Your task to perform on an android device: Go to Reddit.com Image 0: 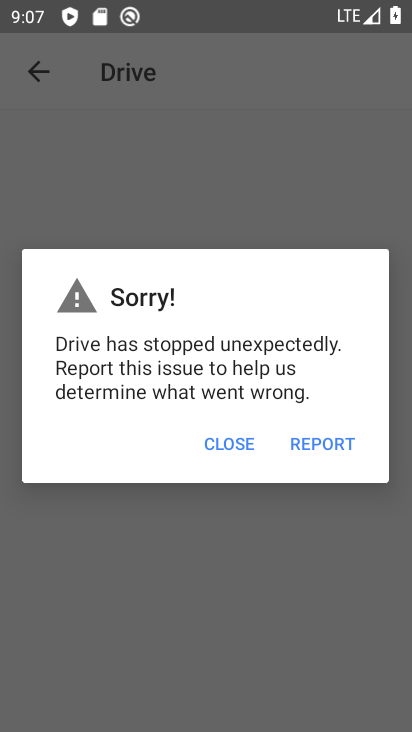
Step 0: press home button
Your task to perform on an android device: Go to Reddit.com Image 1: 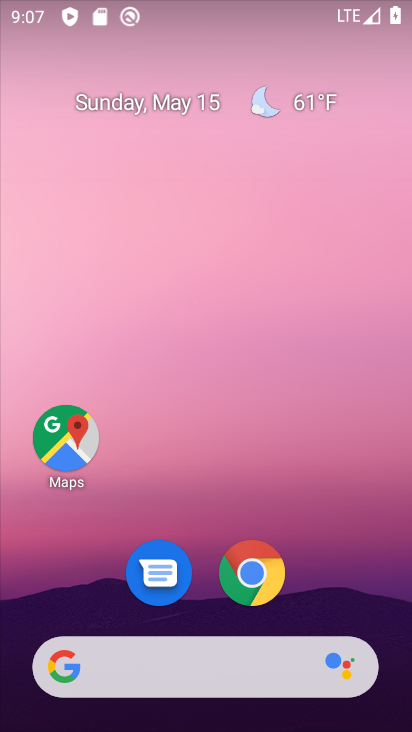
Step 1: click (246, 569)
Your task to perform on an android device: Go to Reddit.com Image 2: 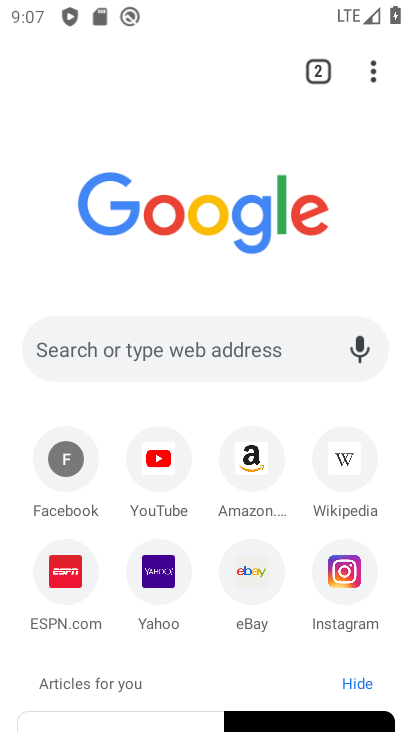
Step 2: click (221, 353)
Your task to perform on an android device: Go to Reddit.com Image 3: 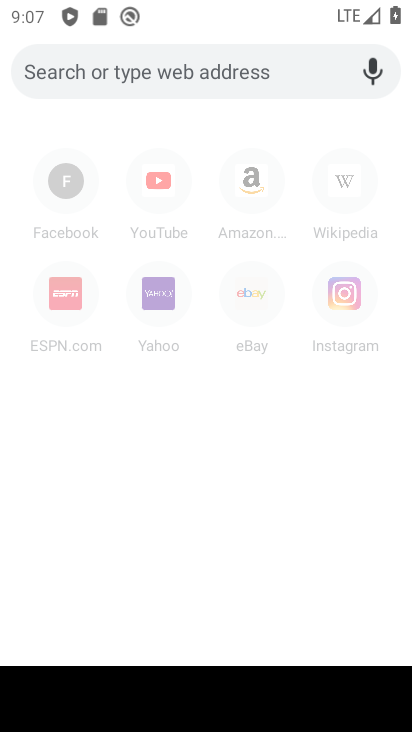
Step 3: click (259, 70)
Your task to perform on an android device: Go to Reddit.com Image 4: 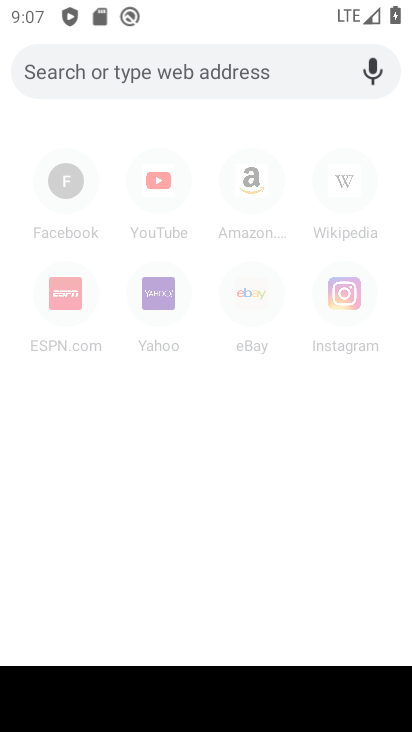
Step 4: type "Reddit.com"
Your task to perform on an android device: Go to Reddit.com Image 5: 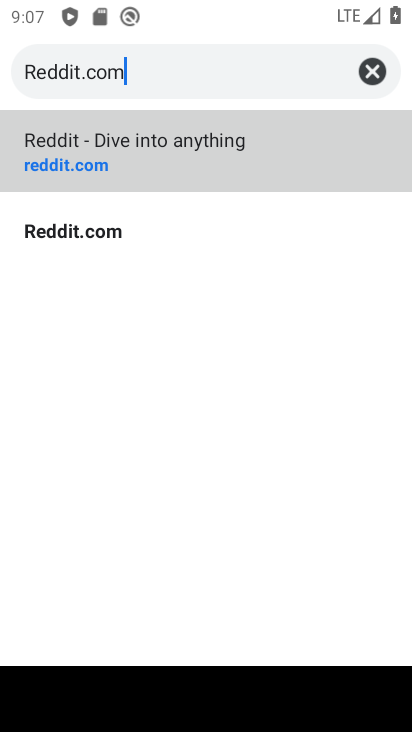
Step 5: type ""
Your task to perform on an android device: Go to Reddit.com Image 6: 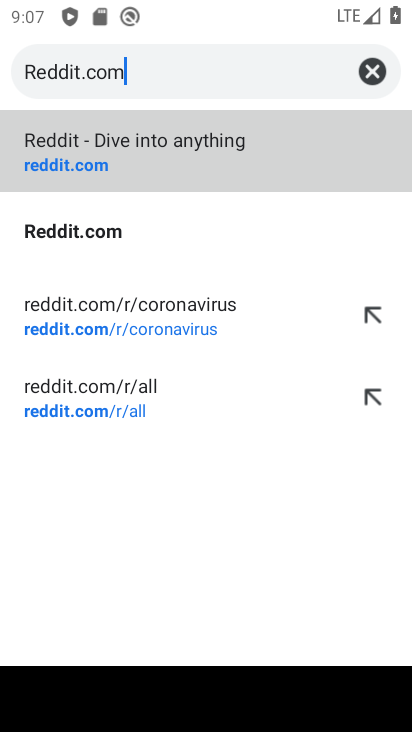
Step 6: click (60, 235)
Your task to perform on an android device: Go to Reddit.com Image 7: 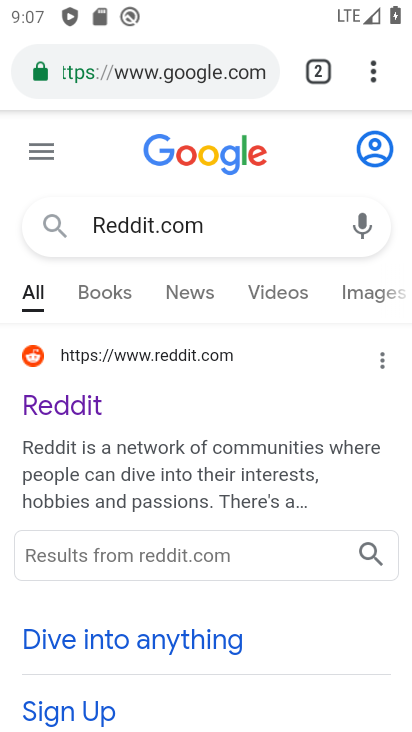
Step 7: click (69, 405)
Your task to perform on an android device: Go to Reddit.com Image 8: 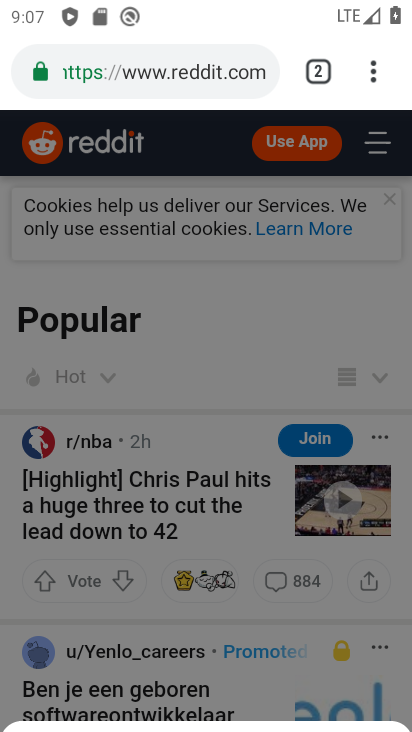
Step 8: task complete